Your task to perform on an android device: Open wifi settings Image 0: 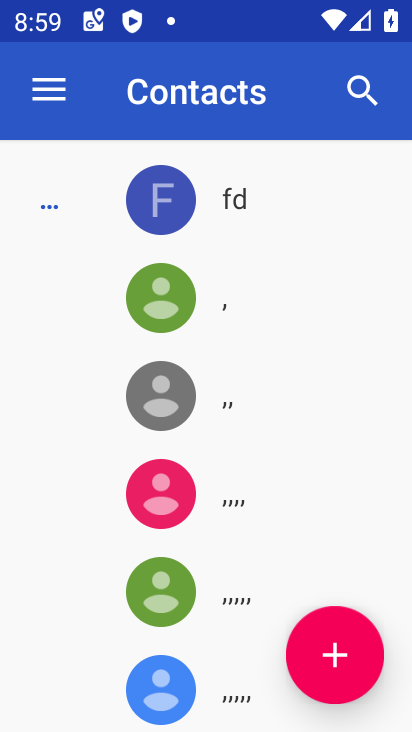
Step 0: press home button
Your task to perform on an android device: Open wifi settings Image 1: 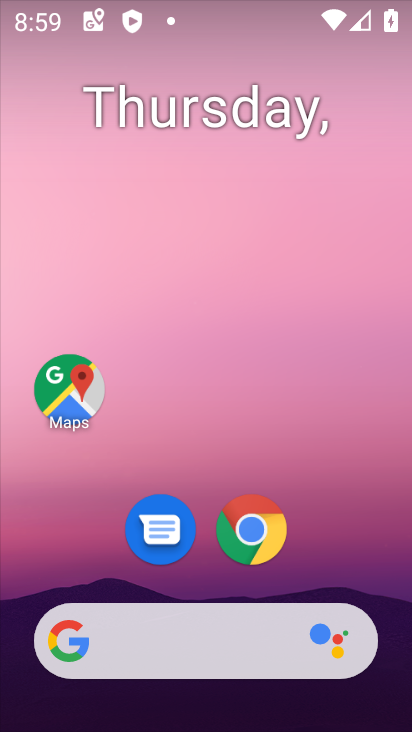
Step 1: drag from (244, 731) to (224, 23)
Your task to perform on an android device: Open wifi settings Image 2: 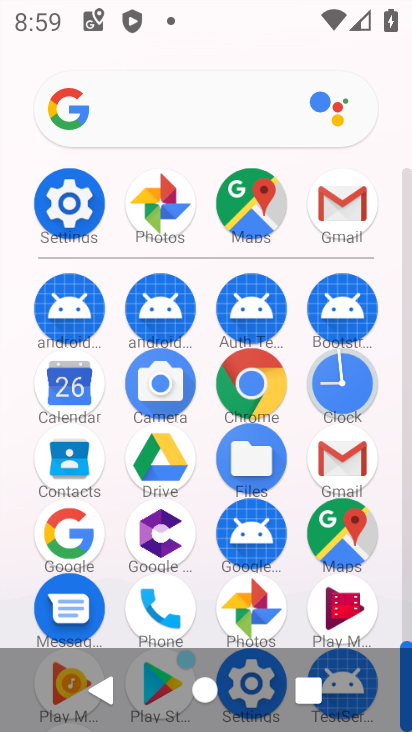
Step 2: click (80, 201)
Your task to perform on an android device: Open wifi settings Image 3: 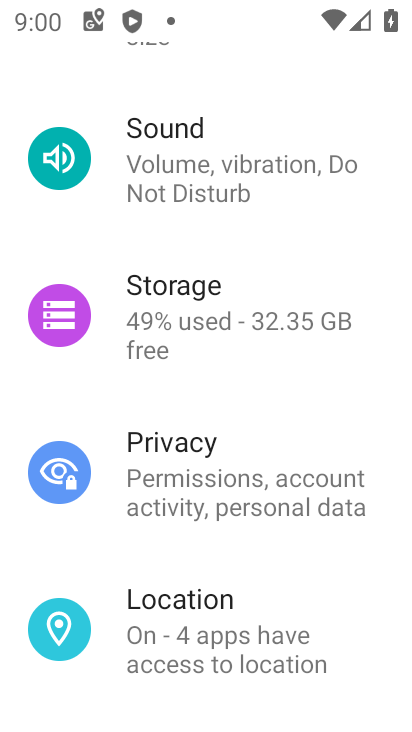
Step 3: drag from (310, 123) to (287, 578)
Your task to perform on an android device: Open wifi settings Image 4: 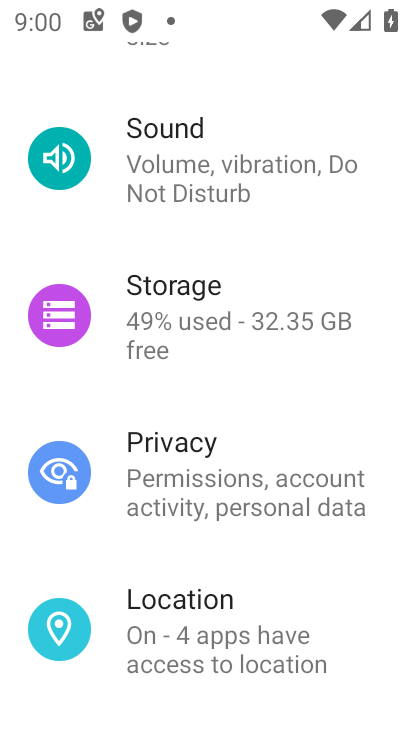
Step 4: drag from (269, 122) to (263, 663)
Your task to perform on an android device: Open wifi settings Image 5: 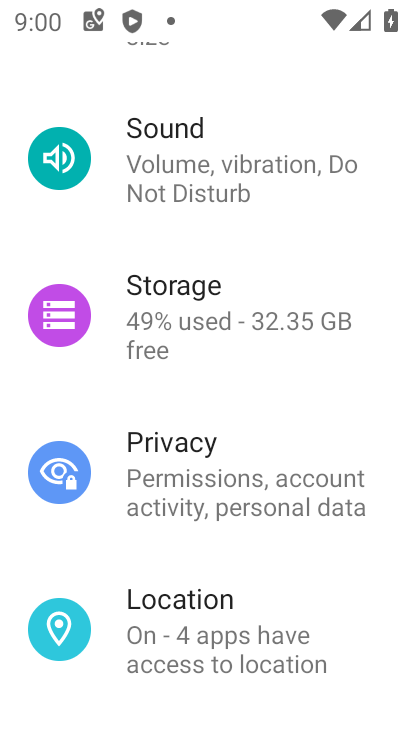
Step 5: drag from (265, 174) to (260, 674)
Your task to perform on an android device: Open wifi settings Image 6: 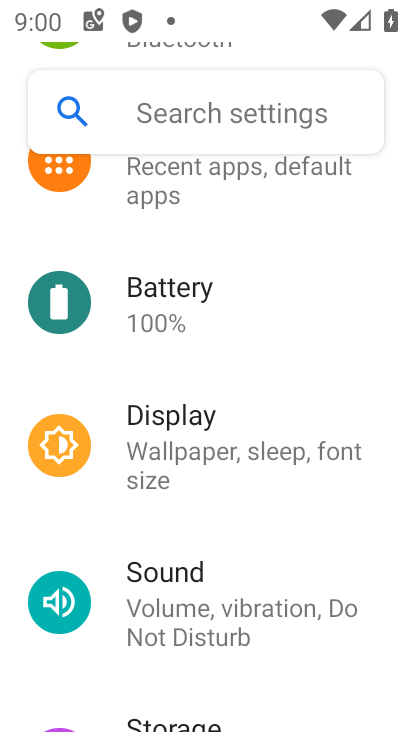
Step 6: drag from (264, 224) to (263, 621)
Your task to perform on an android device: Open wifi settings Image 7: 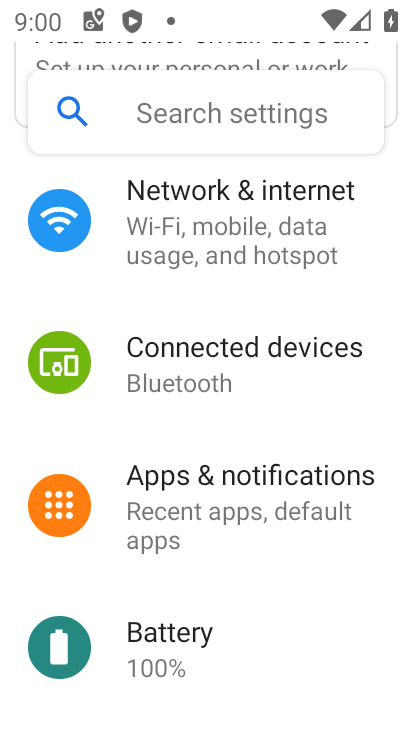
Step 7: drag from (260, 177) to (254, 632)
Your task to perform on an android device: Open wifi settings Image 8: 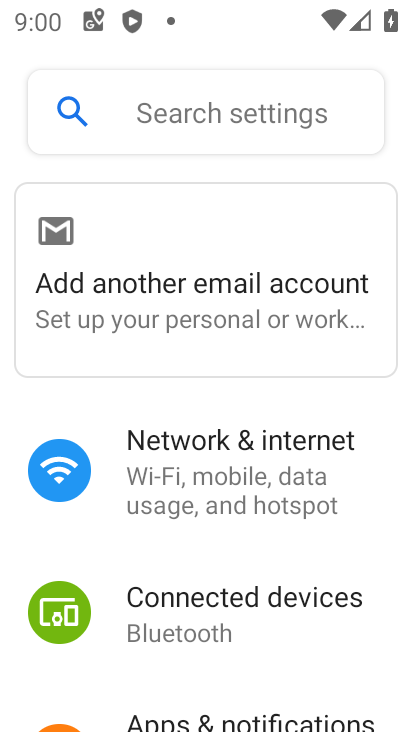
Step 8: click (252, 460)
Your task to perform on an android device: Open wifi settings Image 9: 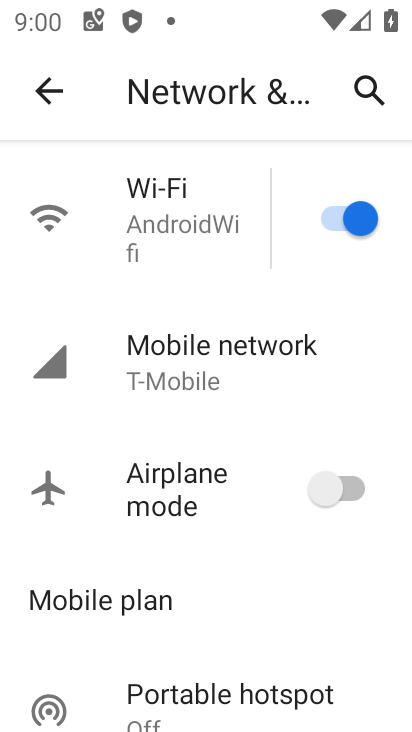
Step 9: click (163, 211)
Your task to perform on an android device: Open wifi settings Image 10: 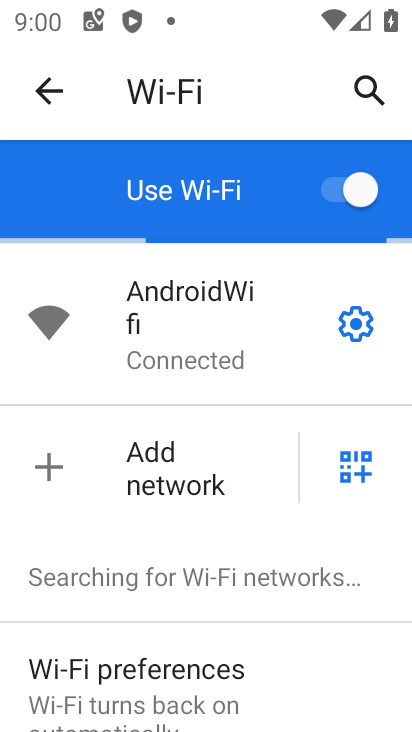
Step 10: task complete